Your task to perform on an android device: change the upload size in google photos Image 0: 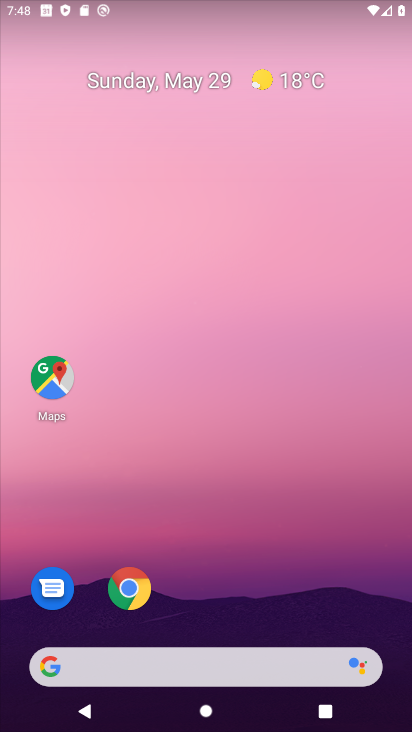
Step 0: drag from (220, 611) to (249, 225)
Your task to perform on an android device: change the upload size in google photos Image 1: 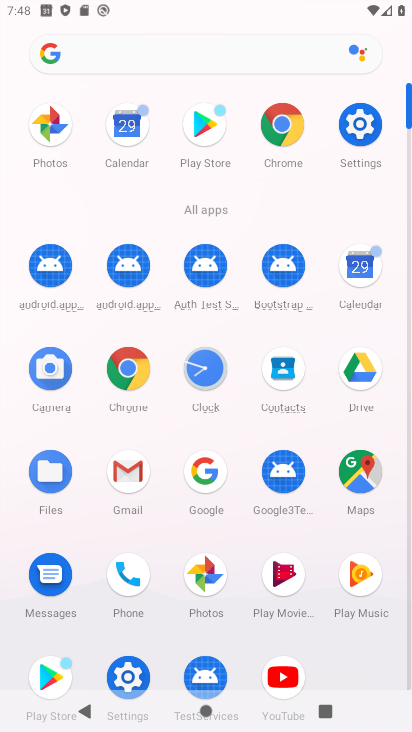
Step 1: click (59, 122)
Your task to perform on an android device: change the upload size in google photos Image 2: 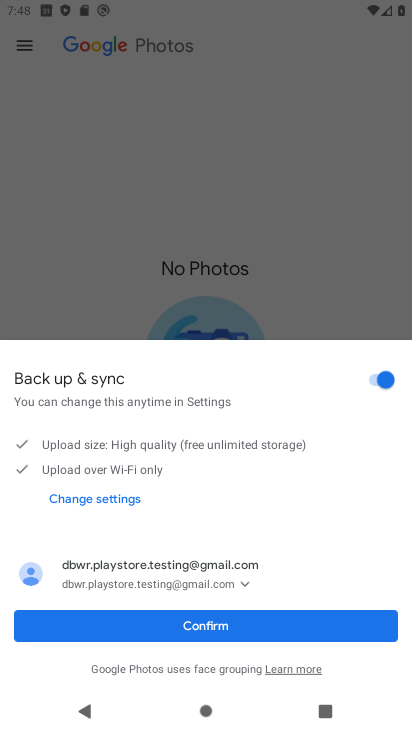
Step 2: click (223, 624)
Your task to perform on an android device: change the upload size in google photos Image 3: 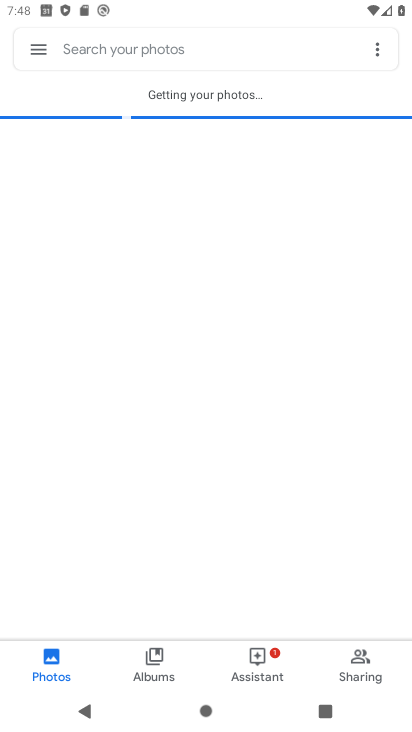
Step 3: click (35, 44)
Your task to perform on an android device: change the upload size in google photos Image 4: 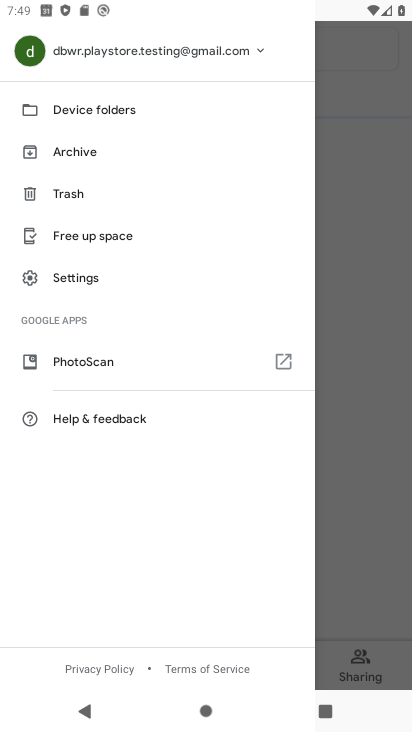
Step 4: click (61, 274)
Your task to perform on an android device: change the upload size in google photos Image 5: 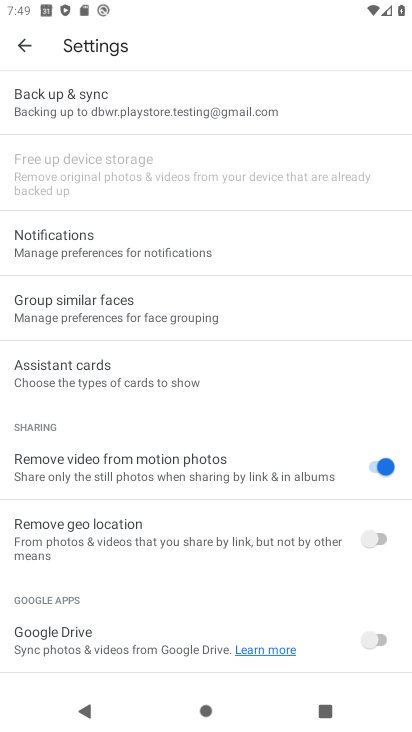
Step 5: click (74, 91)
Your task to perform on an android device: change the upload size in google photos Image 6: 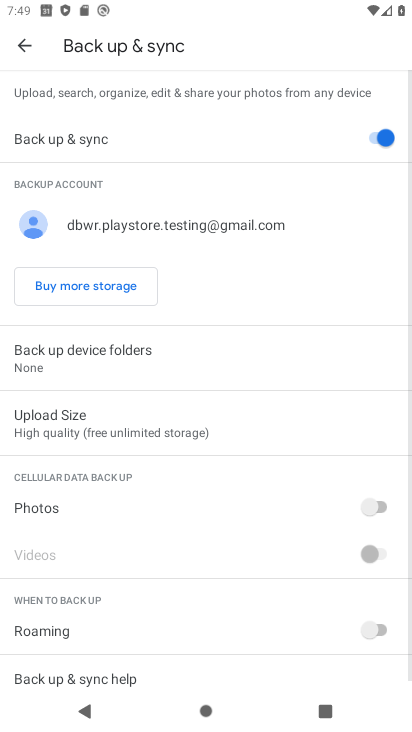
Step 6: click (112, 440)
Your task to perform on an android device: change the upload size in google photos Image 7: 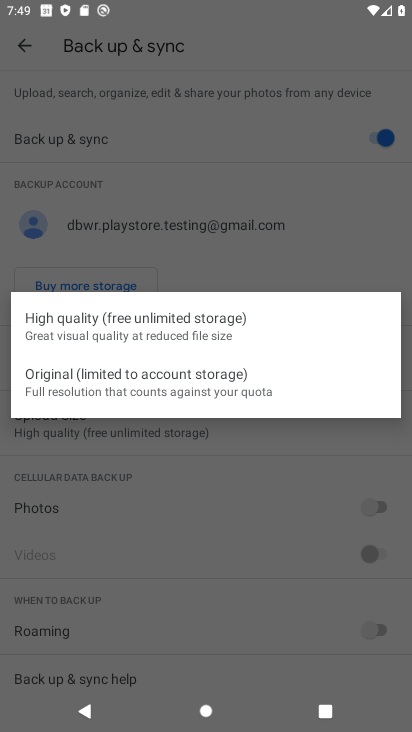
Step 7: click (79, 378)
Your task to perform on an android device: change the upload size in google photos Image 8: 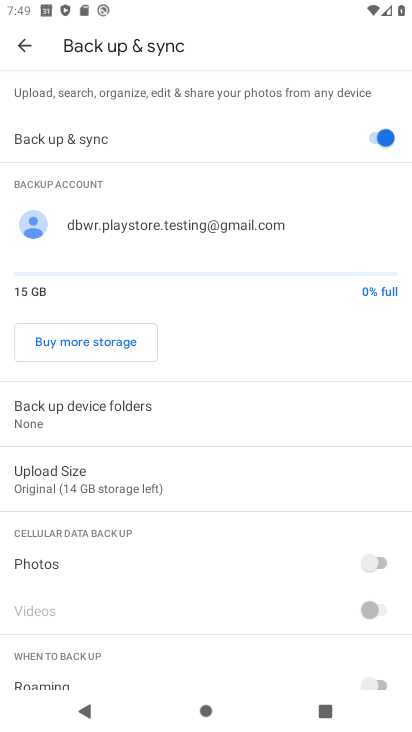
Step 8: task complete